Your task to perform on an android device: Go to accessibility settings Image 0: 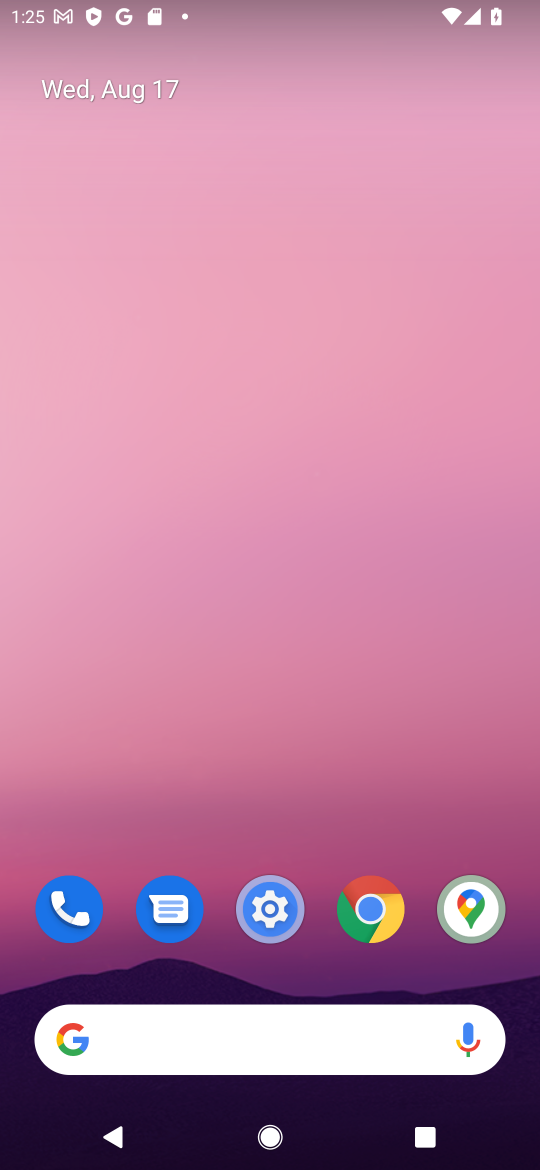
Step 0: drag from (294, 828) to (441, 106)
Your task to perform on an android device: Go to accessibility settings Image 1: 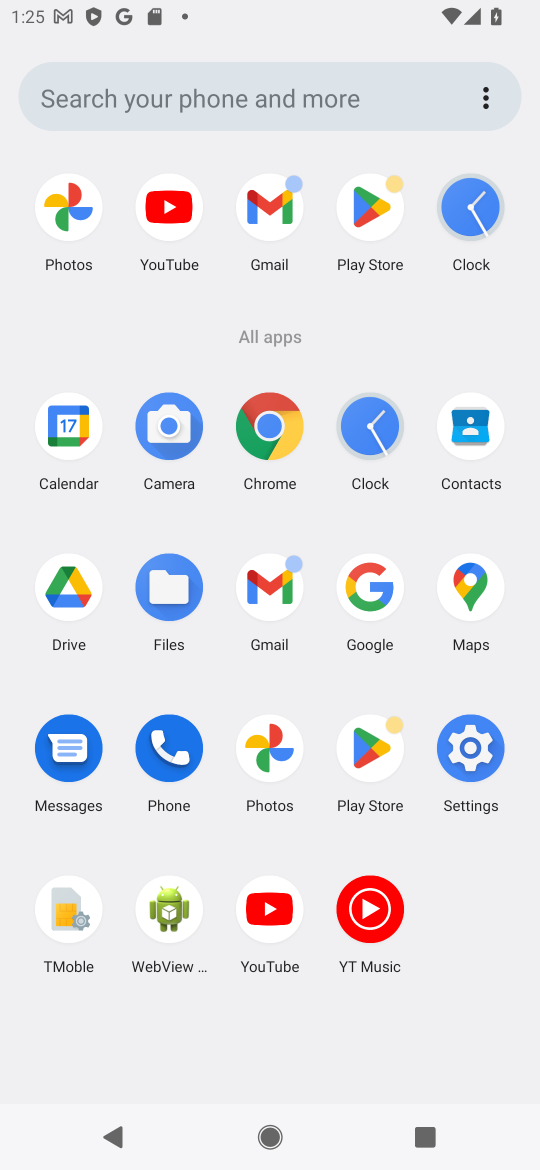
Step 1: task complete